Your task to perform on an android device: turn on airplane mode Image 0: 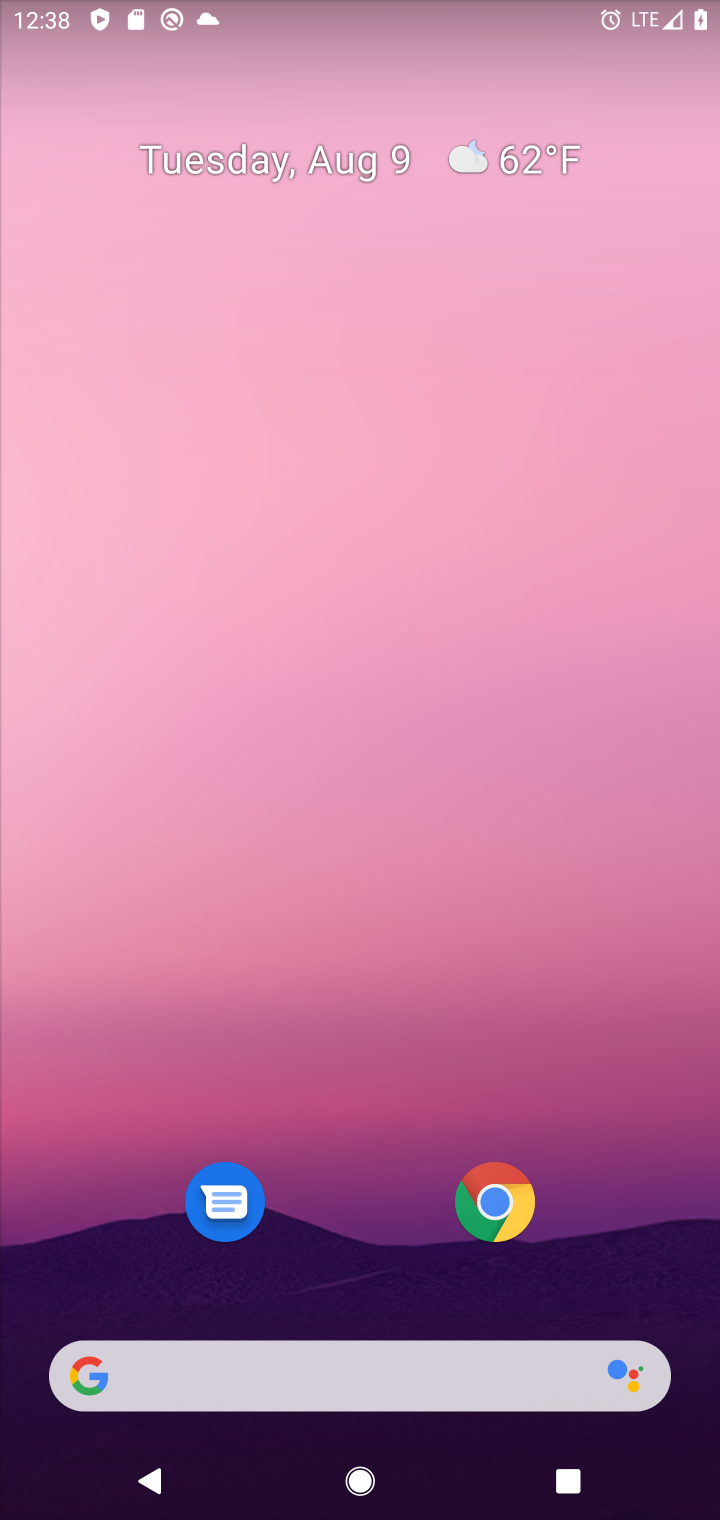
Step 0: drag from (339, 599) to (342, 82)
Your task to perform on an android device: turn on airplane mode Image 1: 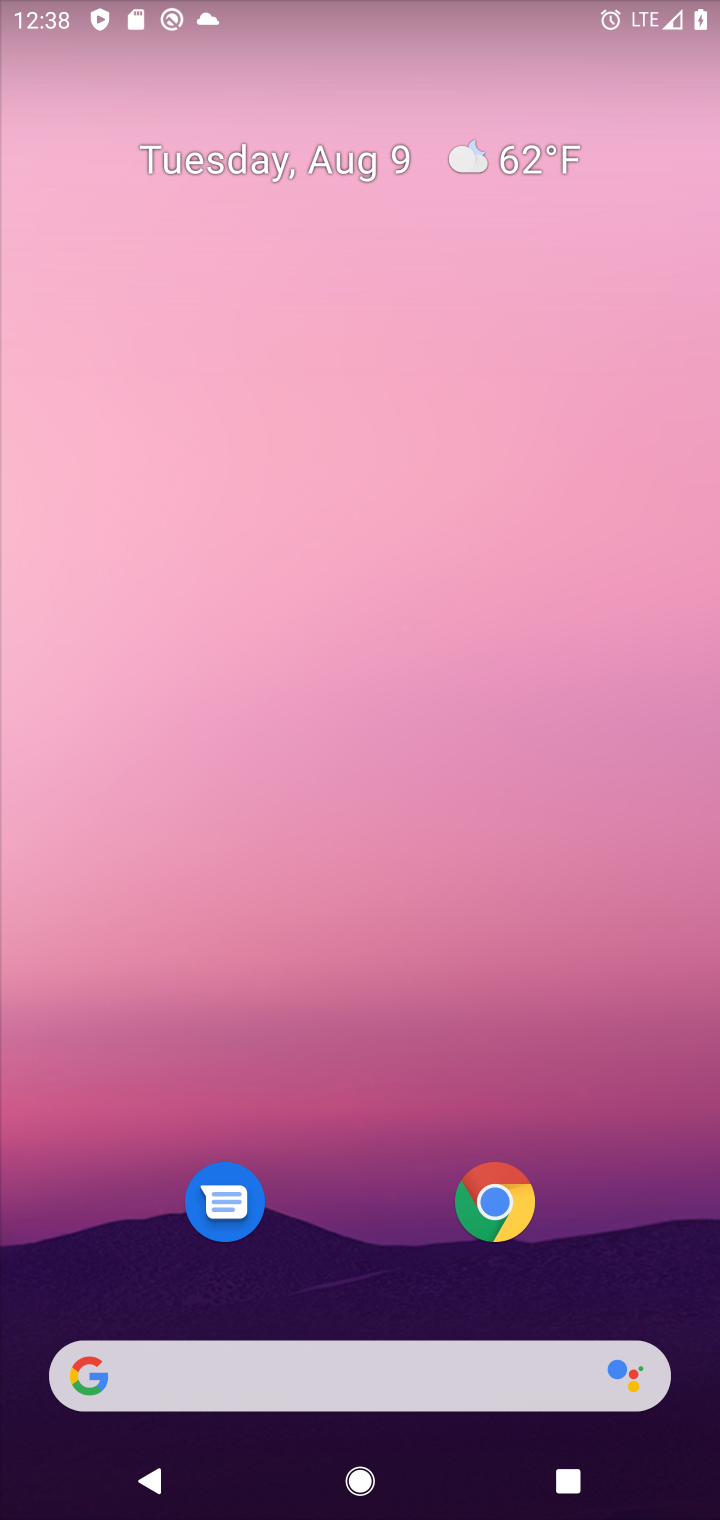
Step 1: drag from (347, 1209) to (428, 489)
Your task to perform on an android device: turn on airplane mode Image 2: 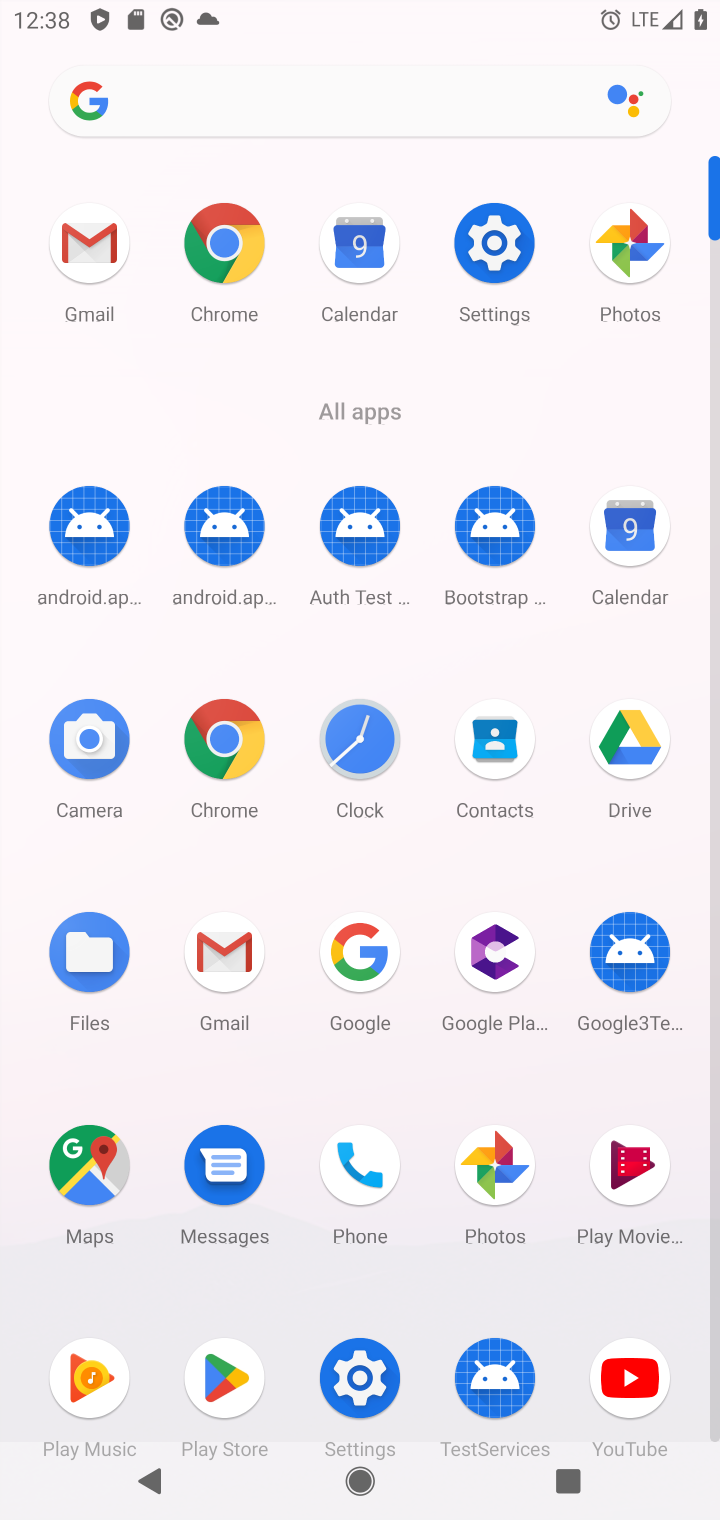
Step 2: click (485, 258)
Your task to perform on an android device: turn on airplane mode Image 3: 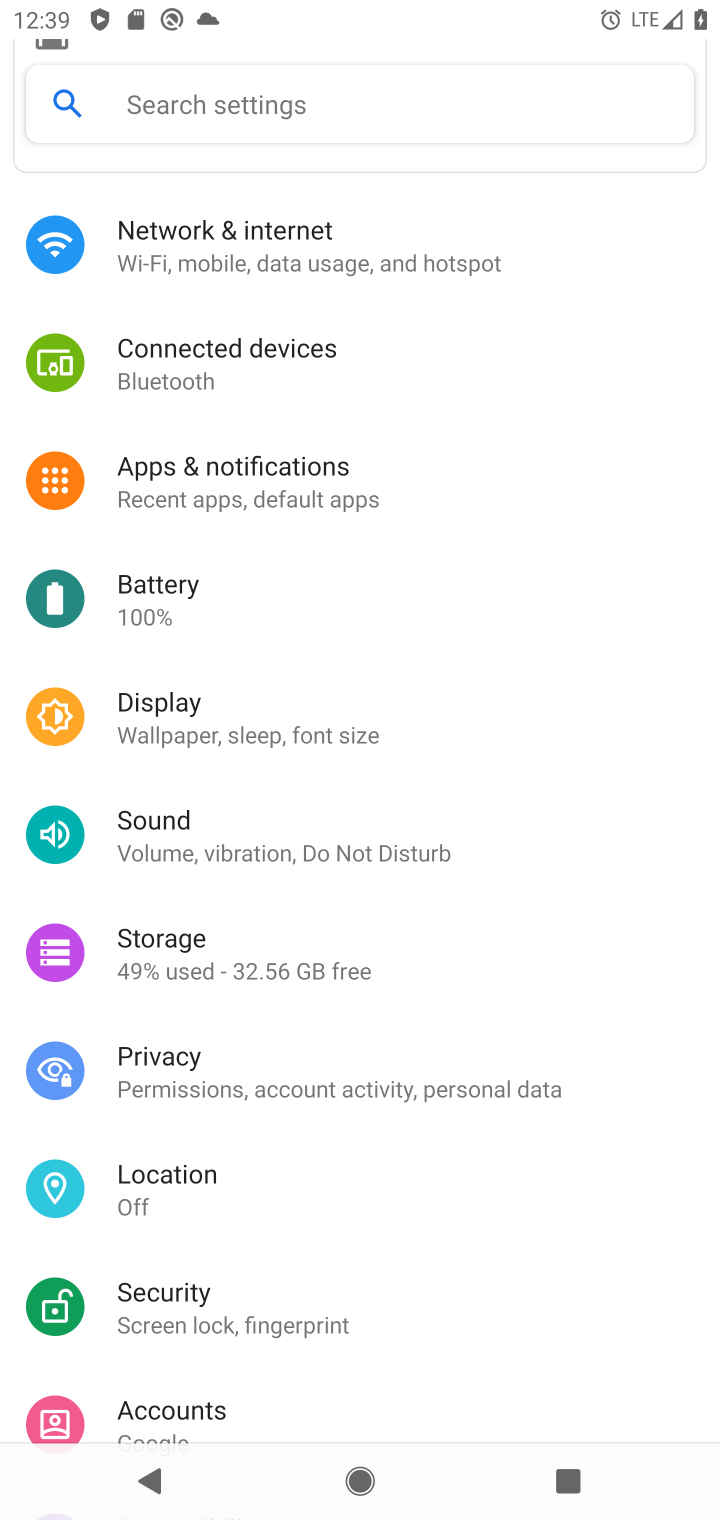
Step 3: click (192, 242)
Your task to perform on an android device: turn on airplane mode Image 4: 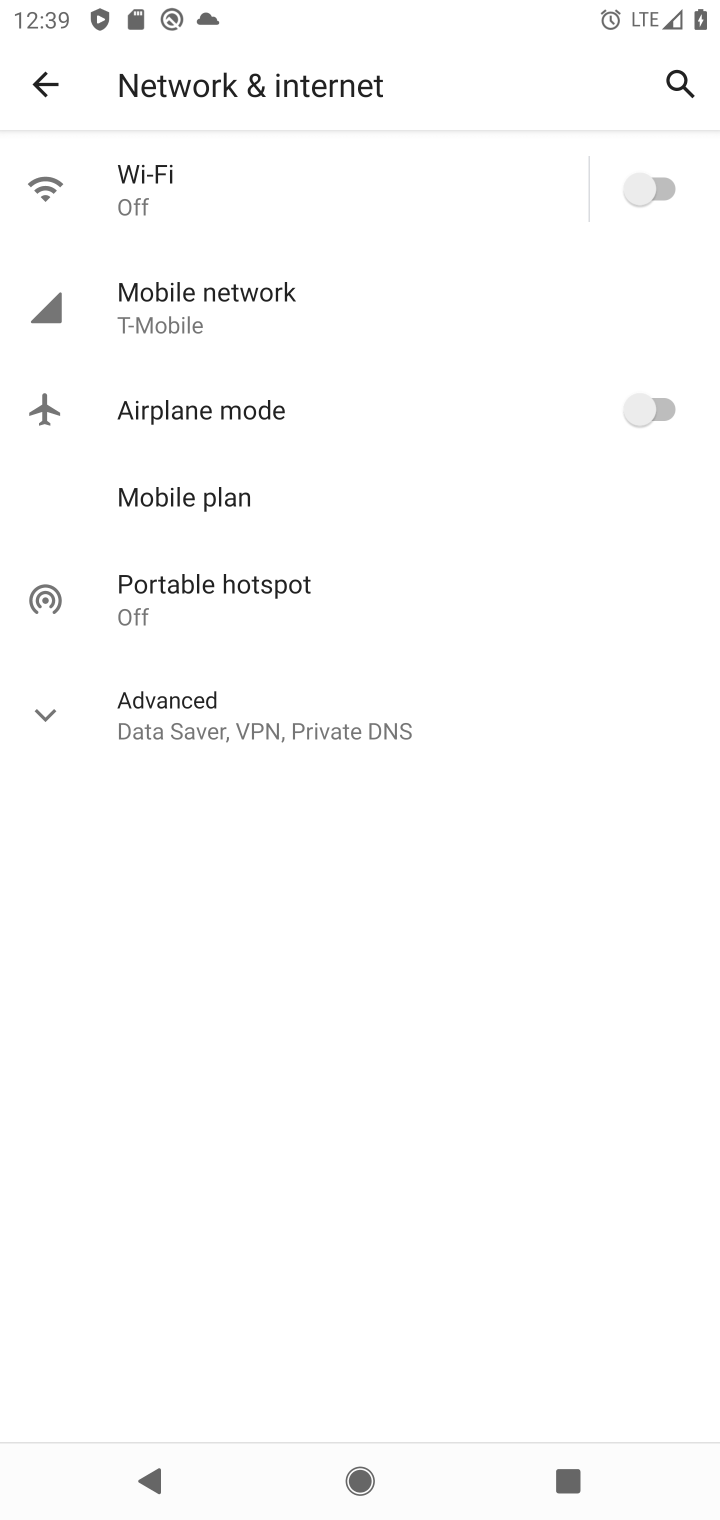
Step 4: click (677, 407)
Your task to perform on an android device: turn on airplane mode Image 5: 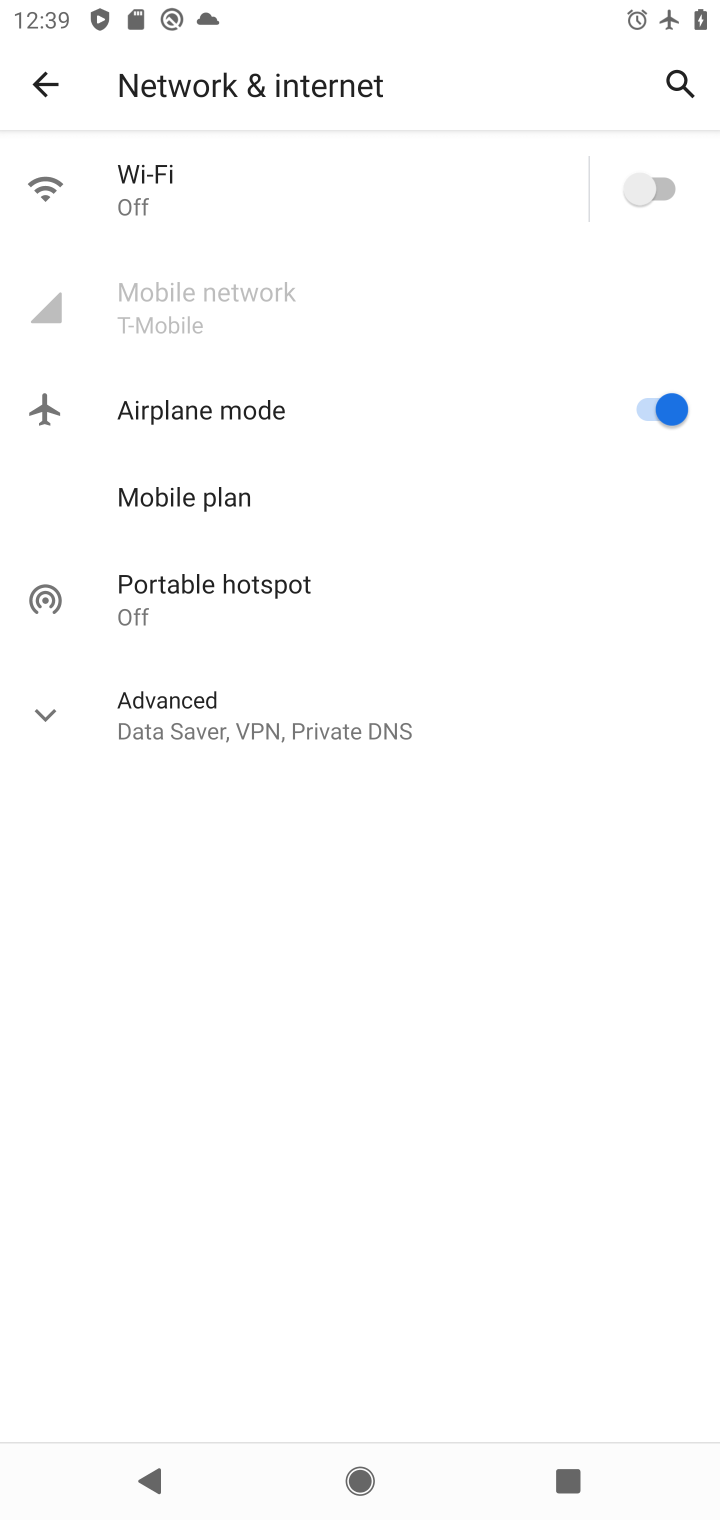
Step 5: task complete